Your task to perform on an android device: delete browsing data in the chrome app Image 0: 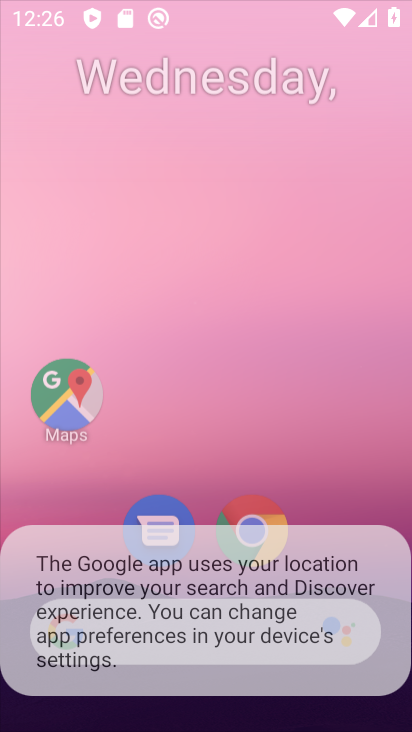
Step 0: click (234, 2)
Your task to perform on an android device: delete browsing data in the chrome app Image 1: 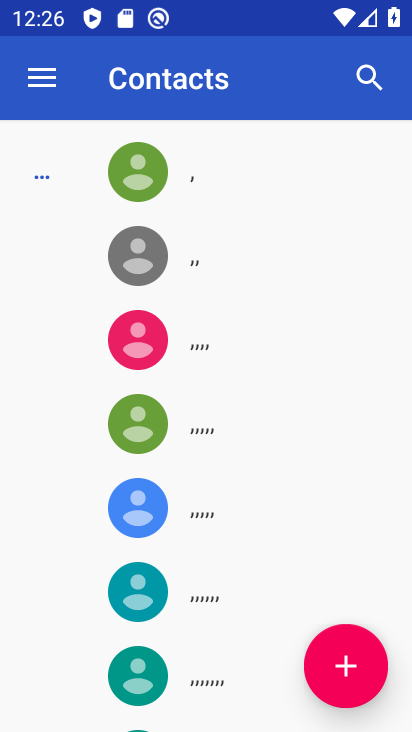
Step 1: press home button
Your task to perform on an android device: delete browsing data in the chrome app Image 2: 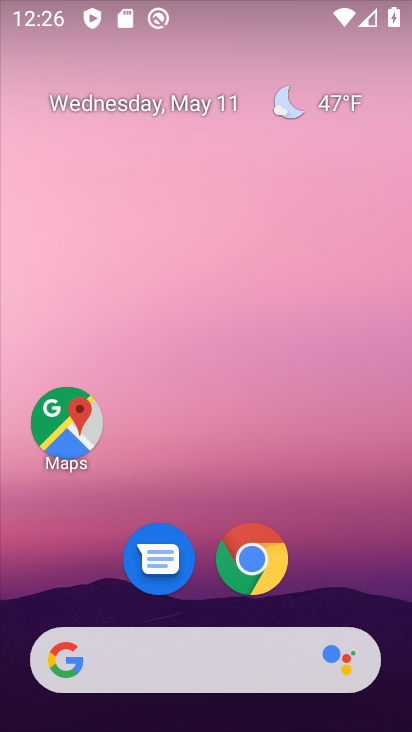
Step 2: click (269, 552)
Your task to perform on an android device: delete browsing data in the chrome app Image 3: 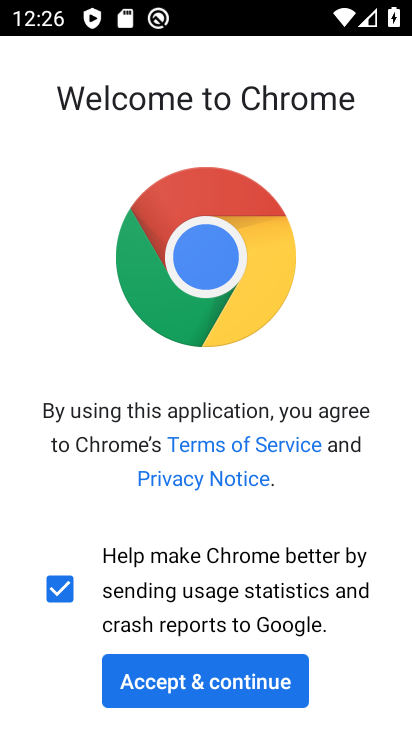
Step 3: click (252, 673)
Your task to perform on an android device: delete browsing data in the chrome app Image 4: 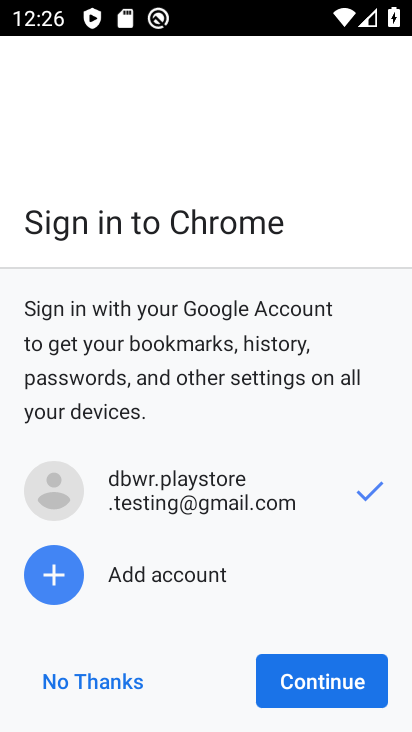
Step 4: click (280, 684)
Your task to perform on an android device: delete browsing data in the chrome app Image 5: 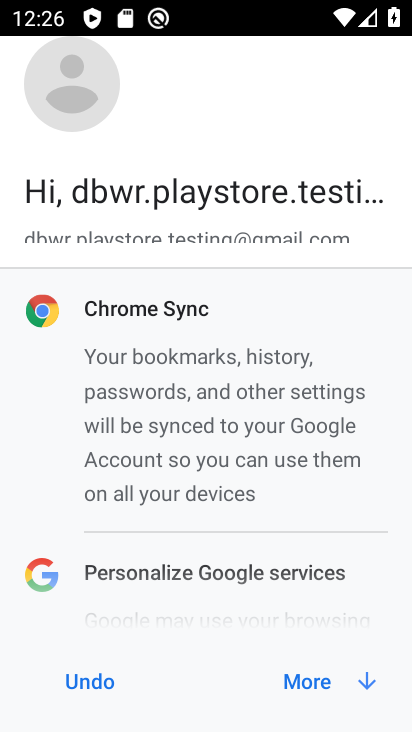
Step 5: click (291, 684)
Your task to perform on an android device: delete browsing data in the chrome app Image 6: 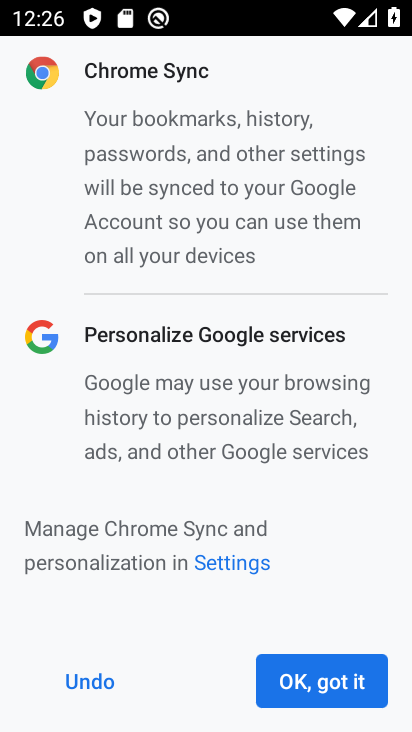
Step 6: click (294, 684)
Your task to perform on an android device: delete browsing data in the chrome app Image 7: 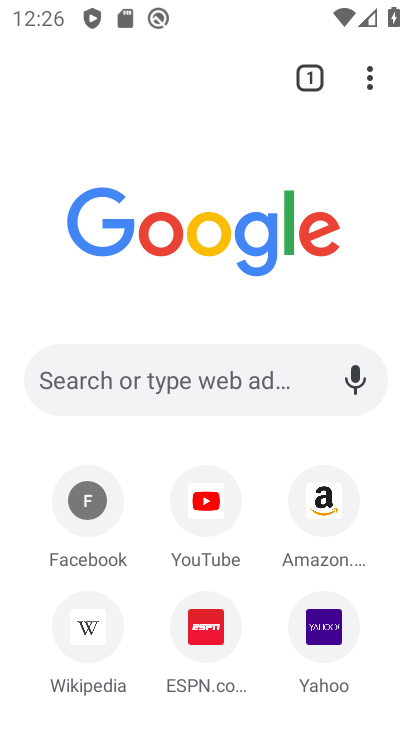
Step 7: click (373, 74)
Your task to perform on an android device: delete browsing data in the chrome app Image 8: 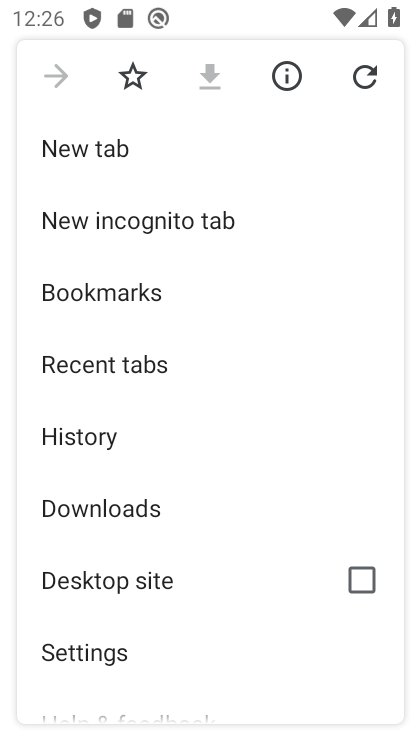
Step 8: click (85, 440)
Your task to perform on an android device: delete browsing data in the chrome app Image 9: 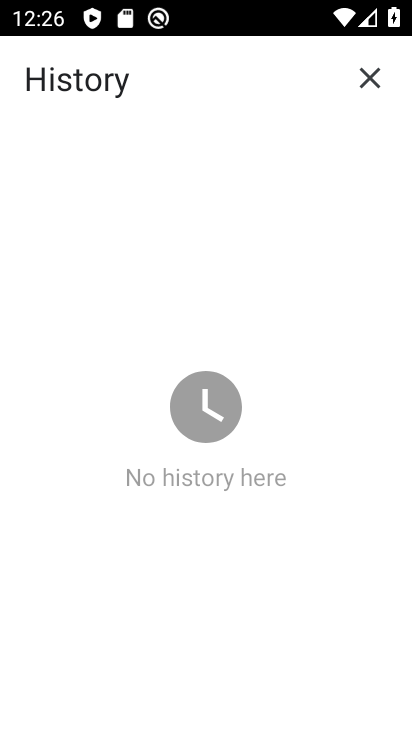
Step 9: task complete